Your task to perform on an android device: Go to settings Image 0: 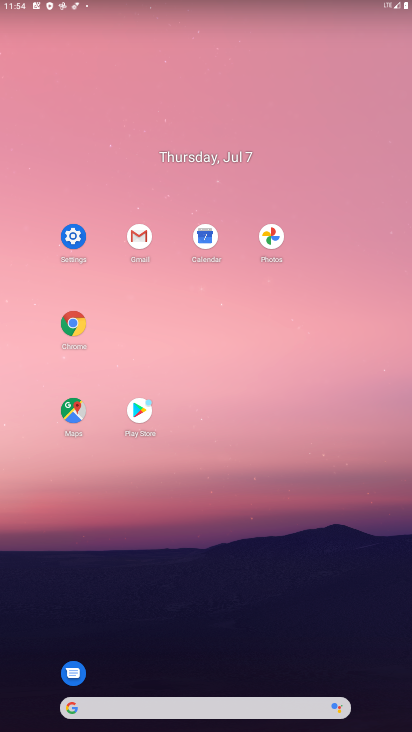
Step 0: click (82, 224)
Your task to perform on an android device: Go to settings Image 1: 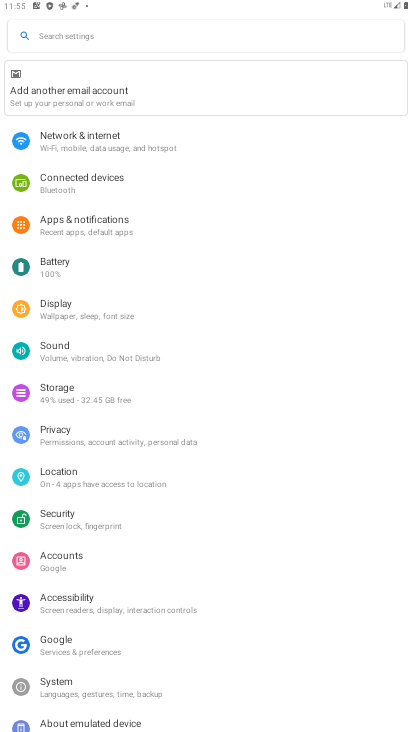
Step 1: task complete